Your task to perform on an android device: What's a good restaurant in San Jose? Image 0: 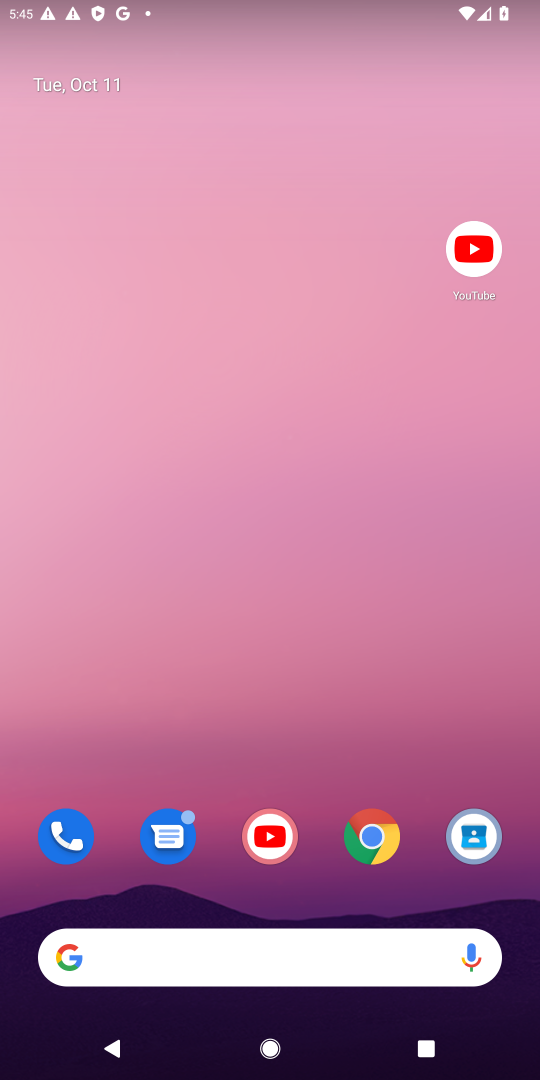
Step 0: click (391, 850)
Your task to perform on an android device: What's a good restaurant in San Jose? Image 1: 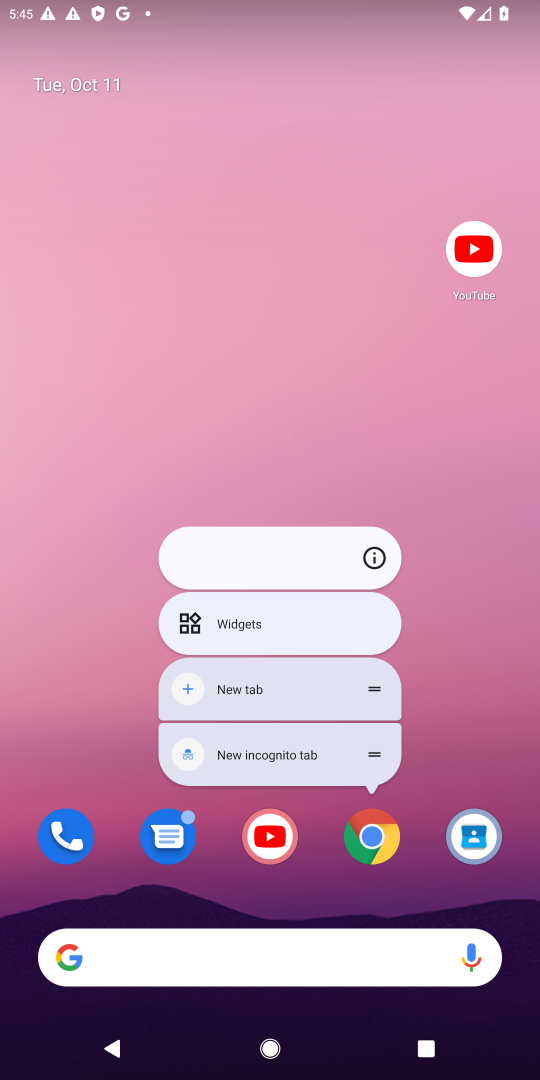
Step 1: click (373, 828)
Your task to perform on an android device: What's a good restaurant in San Jose? Image 2: 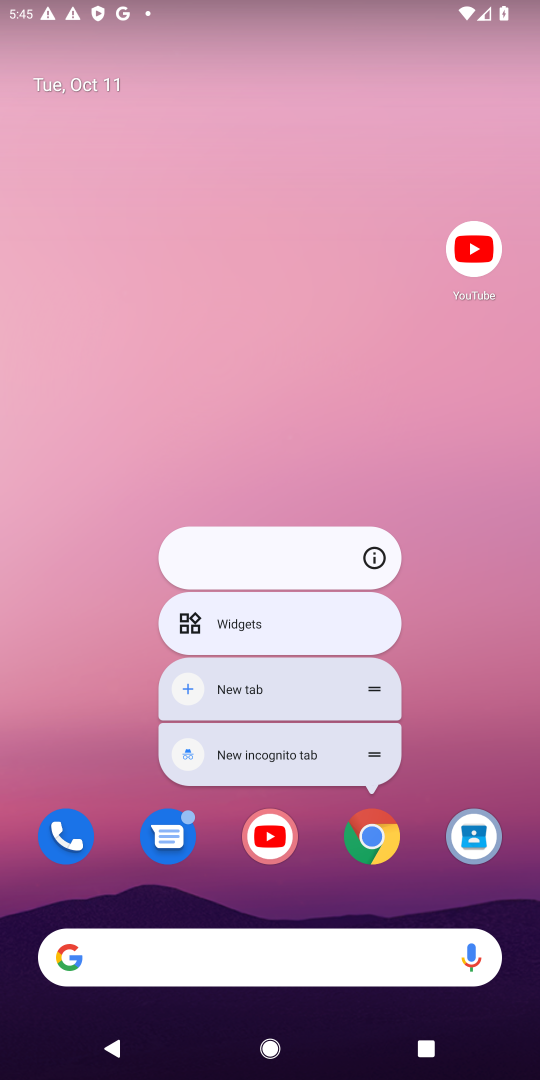
Step 2: click (369, 831)
Your task to perform on an android device: What's a good restaurant in San Jose? Image 3: 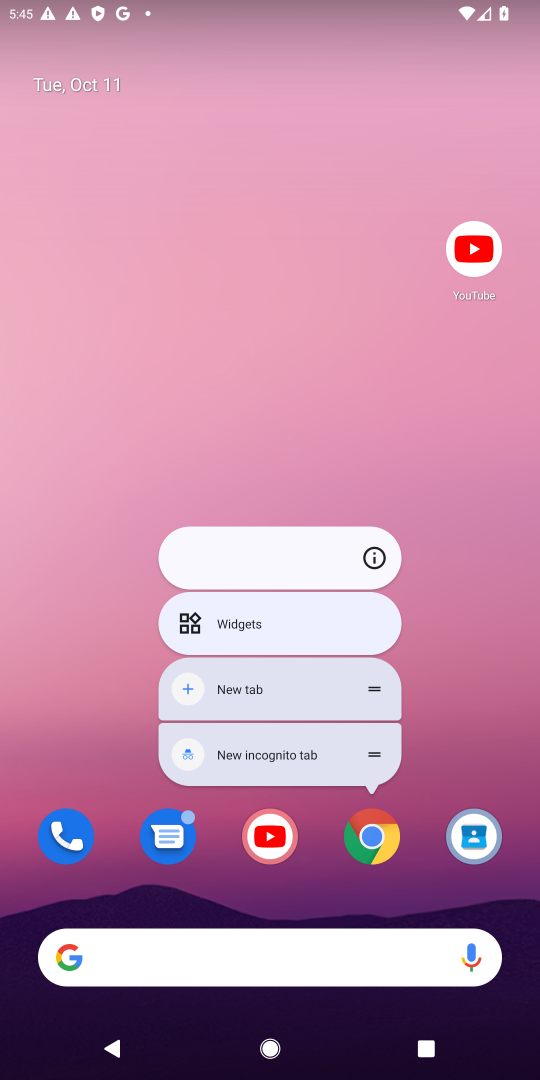
Step 3: click (369, 840)
Your task to perform on an android device: What's a good restaurant in San Jose? Image 4: 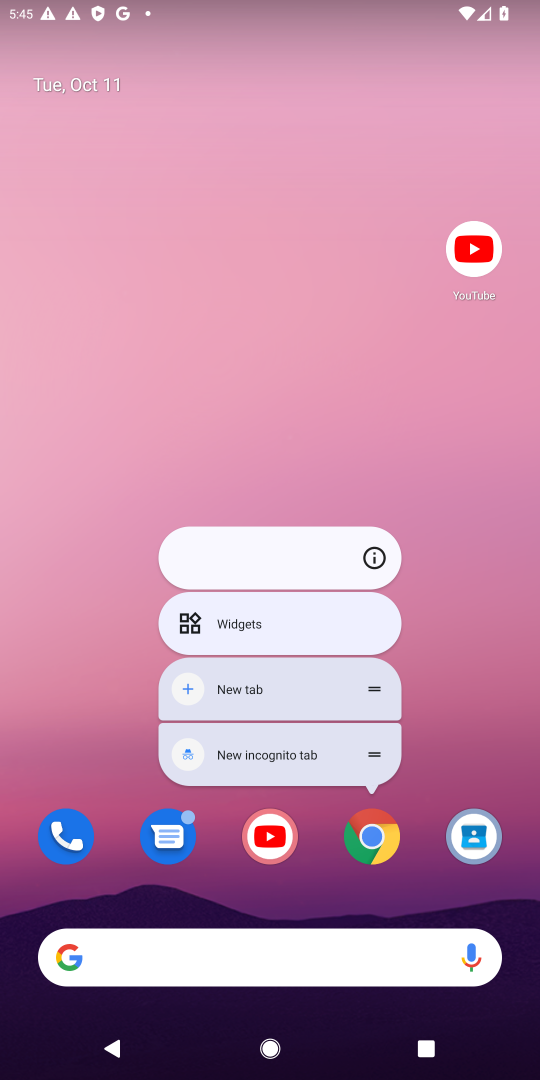
Step 4: click (369, 838)
Your task to perform on an android device: What's a good restaurant in San Jose? Image 5: 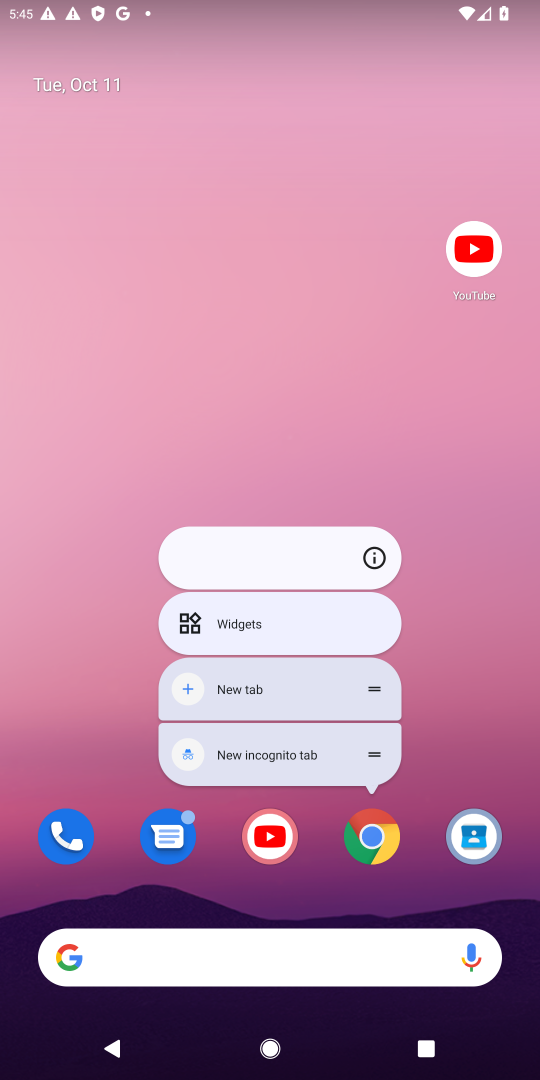
Step 5: click (372, 836)
Your task to perform on an android device: What's a good restaurant in San Jose? Image 6: 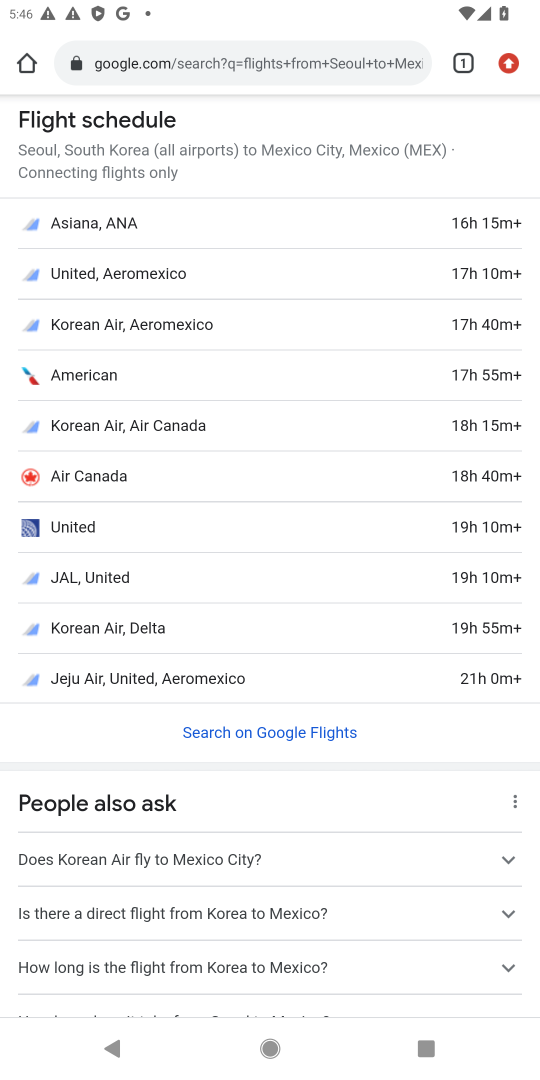
Step 6: click (209, 57)
Your task to perform on an android device: What's a good restaurant in San Jose? Image 7: 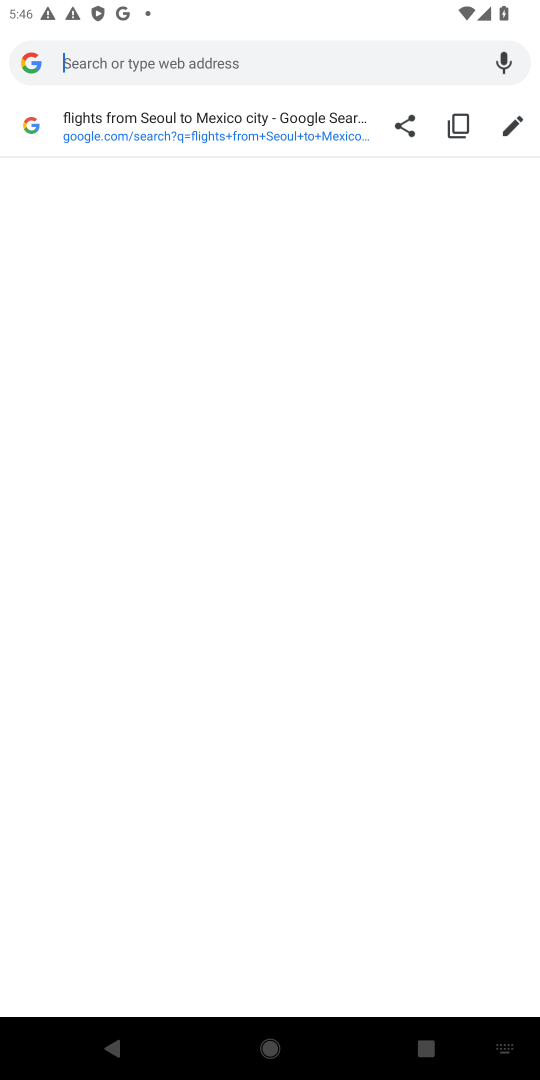
Step 7: type "good restaurant in San Jos"
Your task to perform on an android device: What's a good restaurant in San Jose? Image 8: 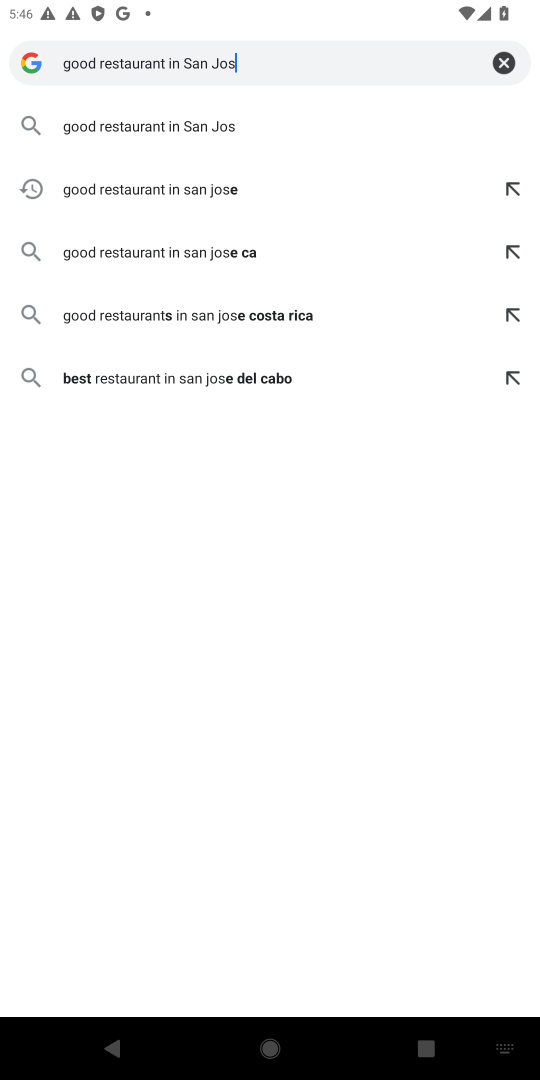
Step 8: click (188, 133)
Your task to perform on an android device: What's a good restaurant in San Jose? Image 9: 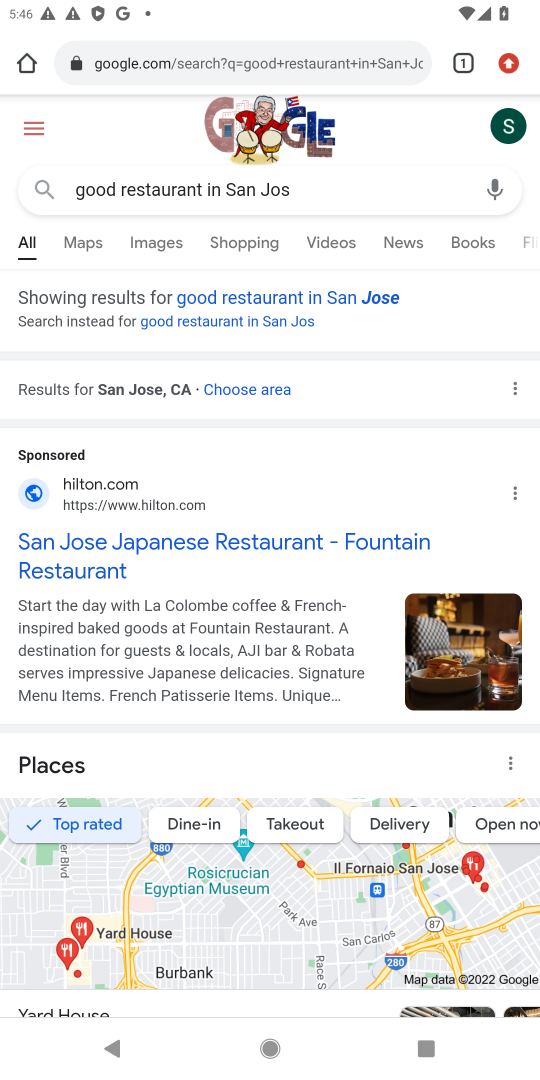
Step 9: drag from (208, 743) to (424, 53)
Your task to perform on an android device: What's a good restaurant in San Jose? Image 10: 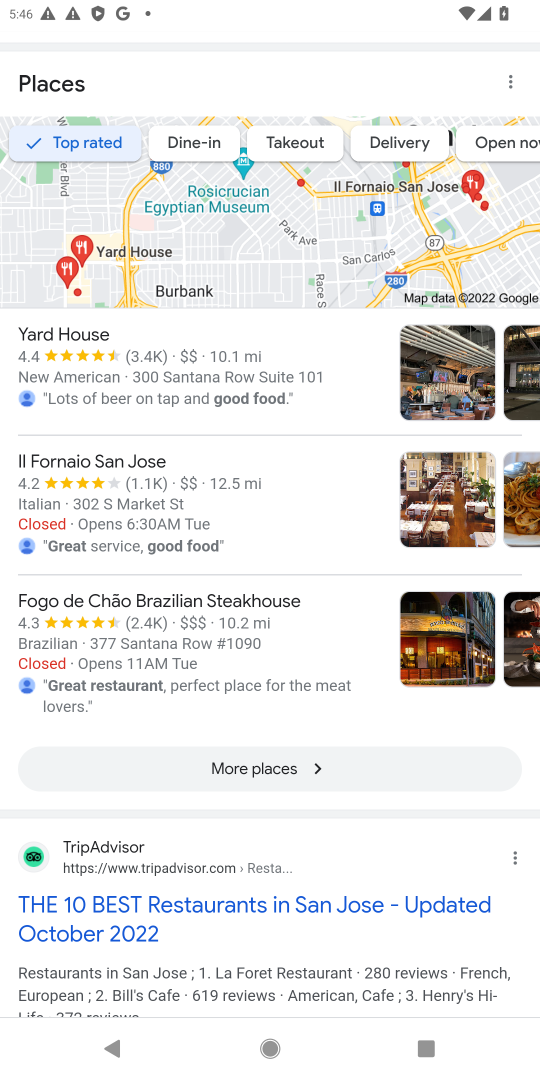
Step 10: click (289, 774)
Your task to perform on an android device: What's a good restaurant in San Jose? Image 11: 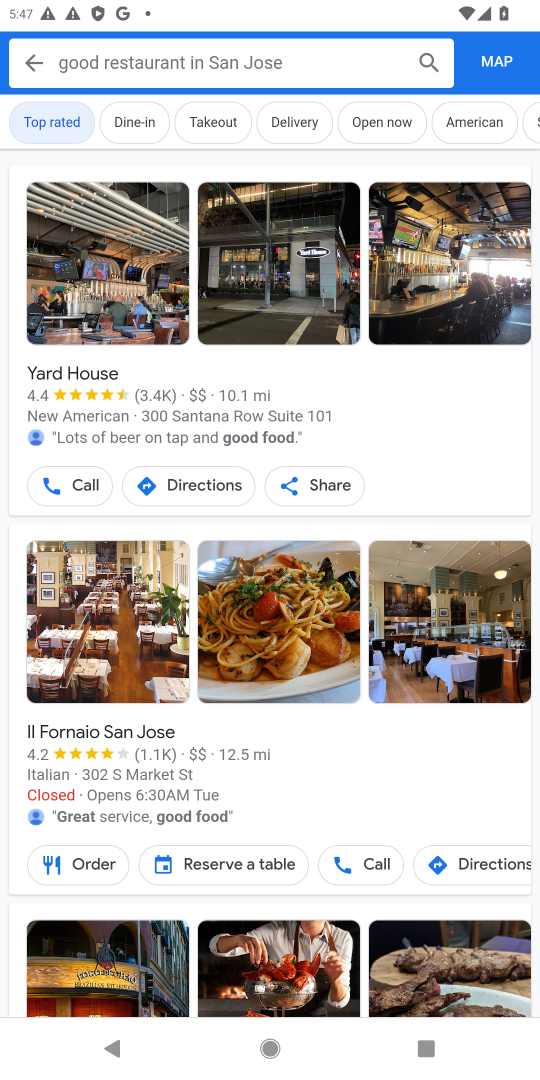
Step 11: task complete